Your task to perform on an android device: turn vacation reply on in the gmail app Image 0: 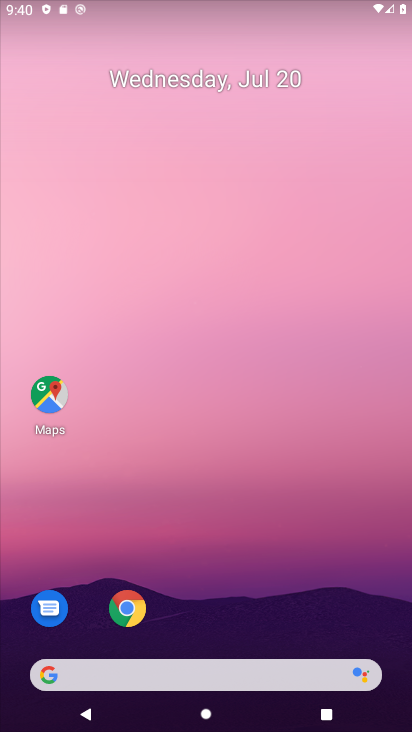
Step 0: click (174, 103)
Your task to perform on an android device: turn vacation reply on in the gmail app Image 1: 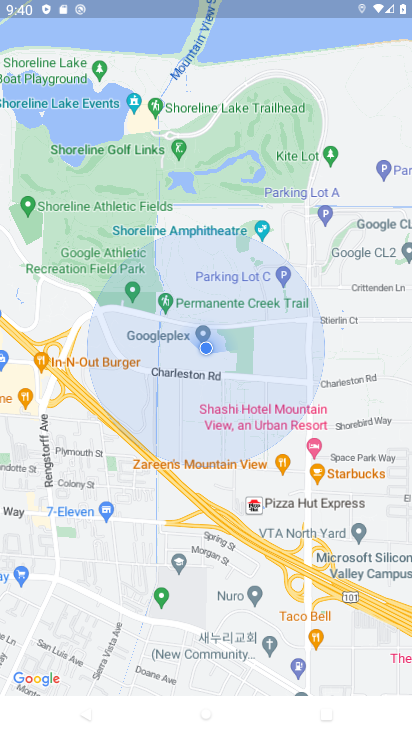
Step 1: press back button
Your task to perform on an android device: turn vacation reply on in the gmail app Image 2: 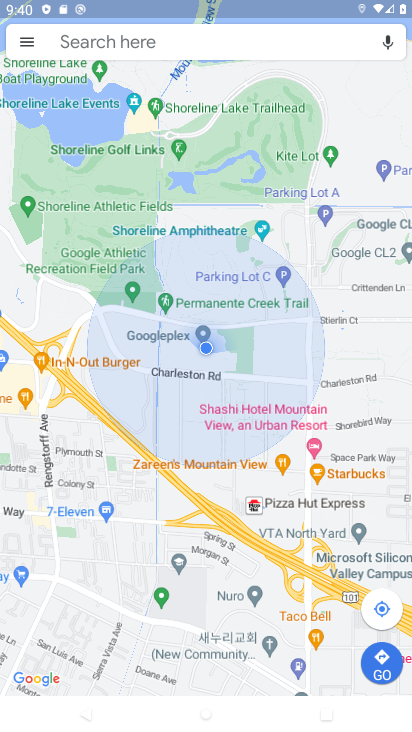
Step 2: press home button
Your task to perform on an android device: turn vacation reply on in the gmail app Image 3: 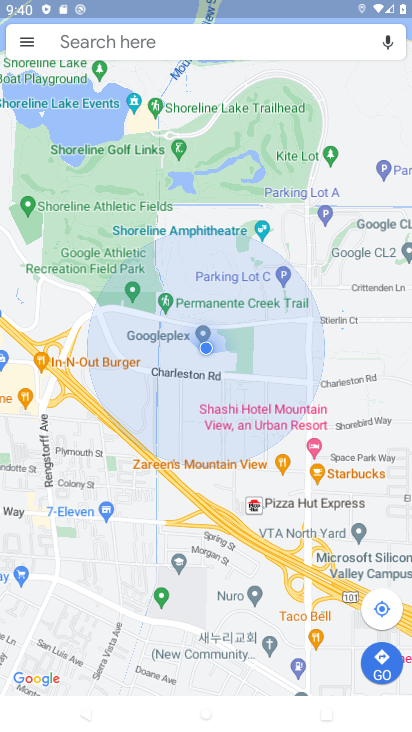
Step 3: press home button
Your task to perform on an android device: turn vacation reply on in the gmail app Image 4: 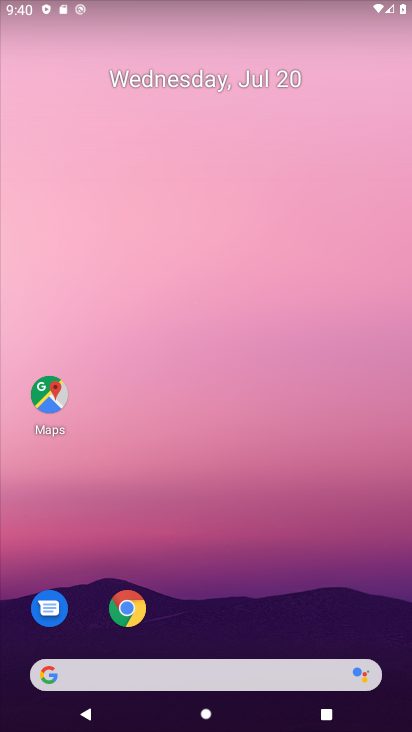
Step 4: drag from (227, 525) to (239, 214)
Your task to perform on an android device: turn vacation reply on in the gmail app Image 5: 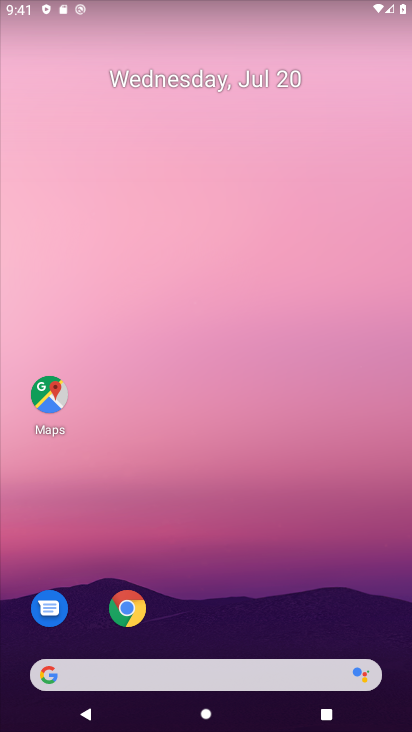
Step 5: drag from (250, 549) to (214, 59)
Your task to perform on an android device: turn vacation reply on in the gmail app Image 6: 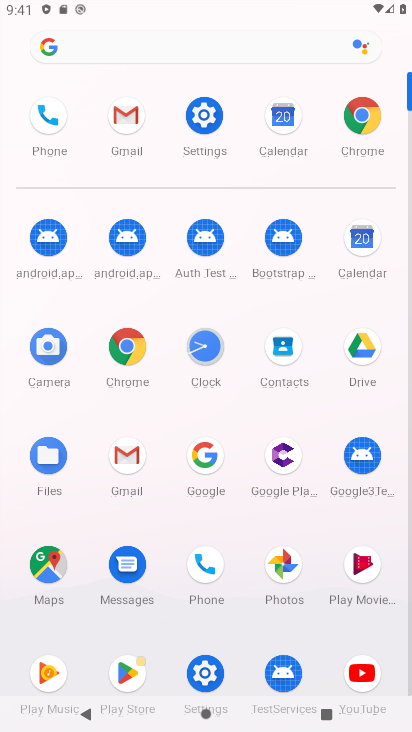
Step 6: click (127, 449)
Your task to perform on an android device: turn vacation reply on in the gmail app Image 7: 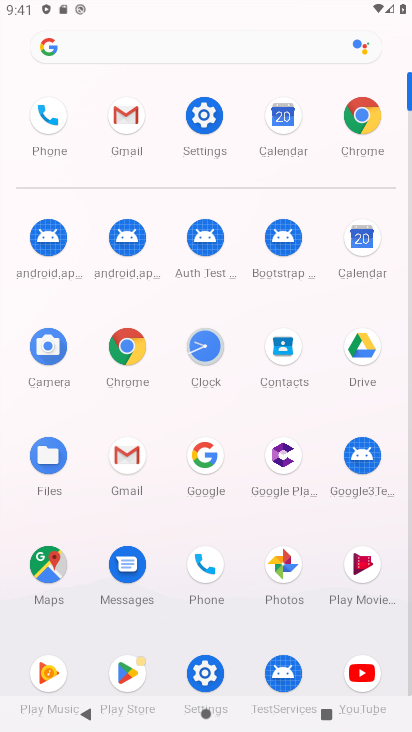
Step 7: click (129, 447)
Your task to perform on an android device: turn vacation reply on in the gmail app Image 8: 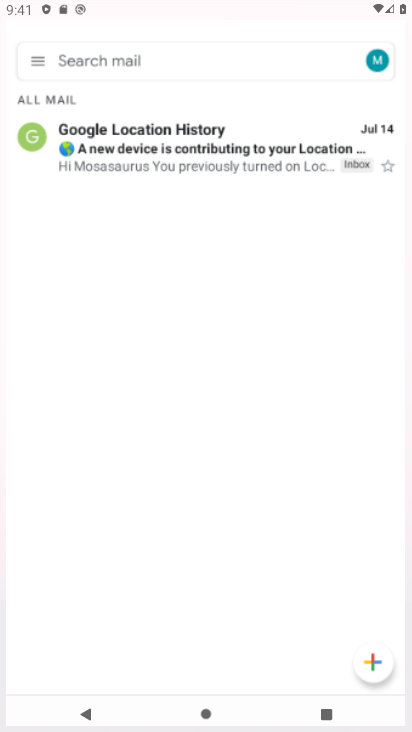
Step 8: click (134, 448)
Your task to perform on an android device: turn vacation reply on in the gmail app Image 9: 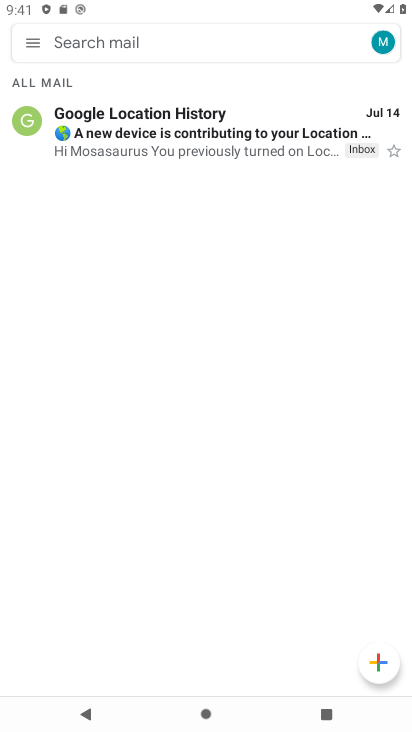
Step 9: click (40, 41)
Your task to perform on an android device: turn vacation reply on in the gmail app Image 10: 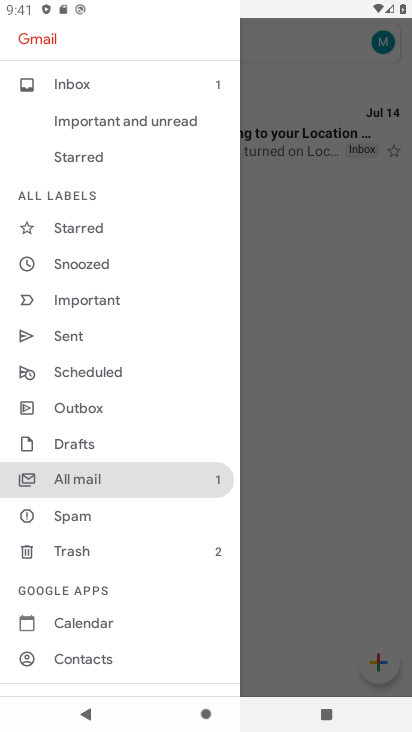
Step 10: drag from (102, 621) to (75, 266)
Your task to perform on an android device: turn vacation reply on in the gmail app Image 11: 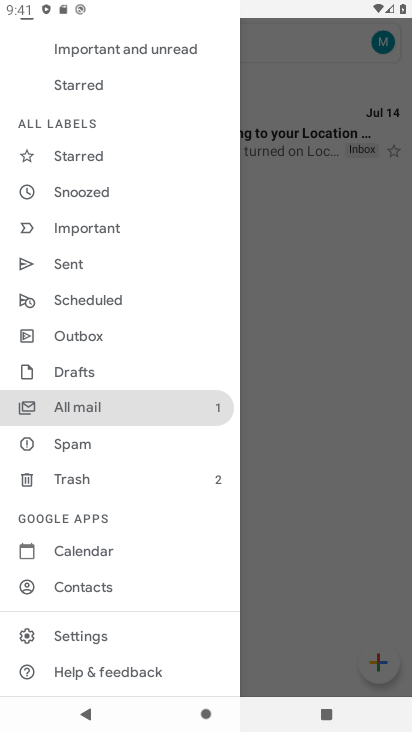
Step 11: click (74, 633)
Your task to perform on an android device: turn vacation reply on in the gmail app Image 12: 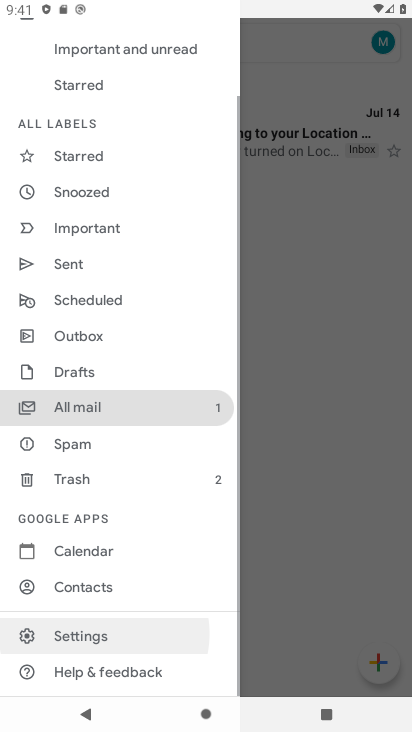
Step 12: click (80, 634)
Your task to perform on an android device: turn vacation reply on in the gmail app Image 13: 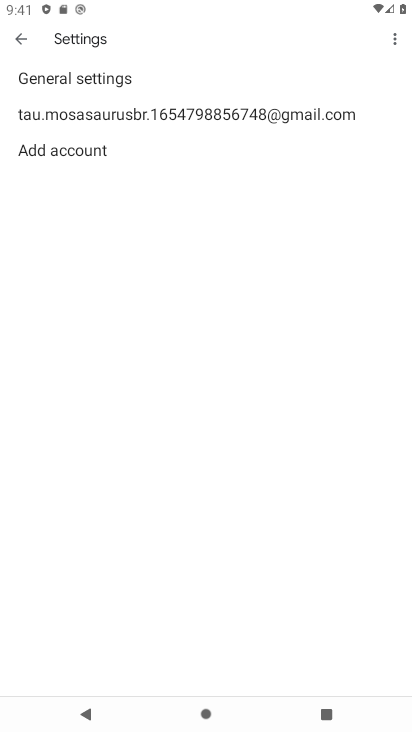
Step 13: click (115, 109)
Your task to perform on an android device: turn vacation reply on in the gmail app Image 14: 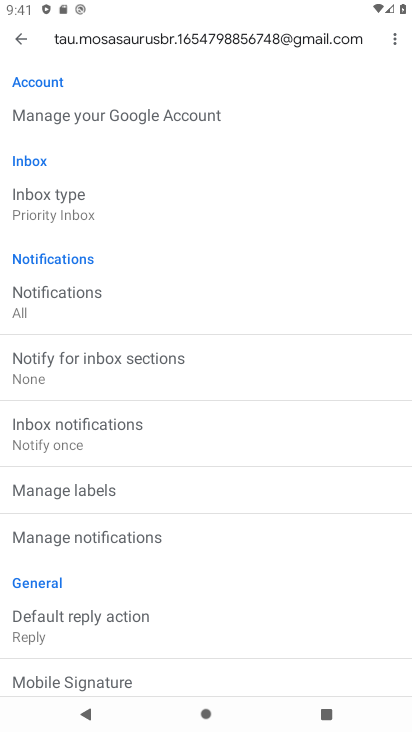
Step 14: drag from (123, 516) to (106, 259)
Your task to perform on an android device: turn vacation reply on in the gmail app Image 15: 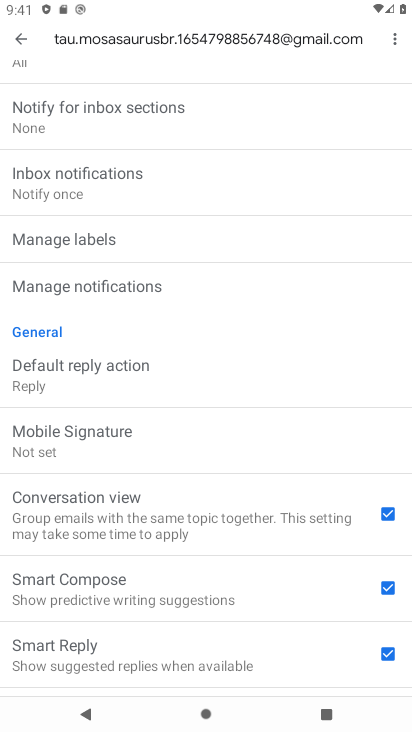
Step 15: drag from (157, 528) to (177, 161)
Your task to perform on an android device: turn vacation reply on in the gmail app Image 16: 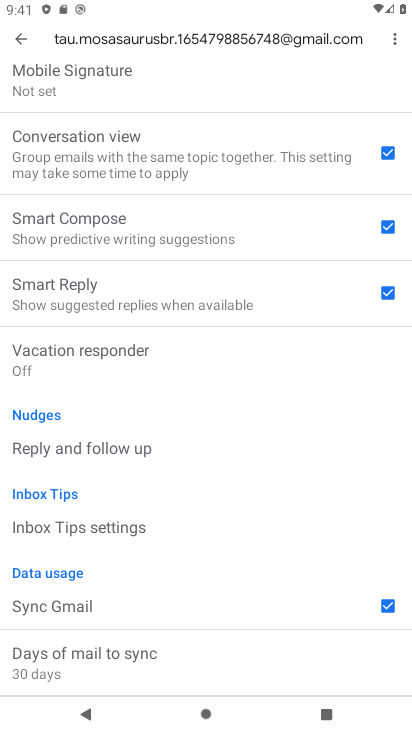
Step 16: click (95, 350)
Your task to perform on an android device: turn vacation reply on in the gmail app Image 17: 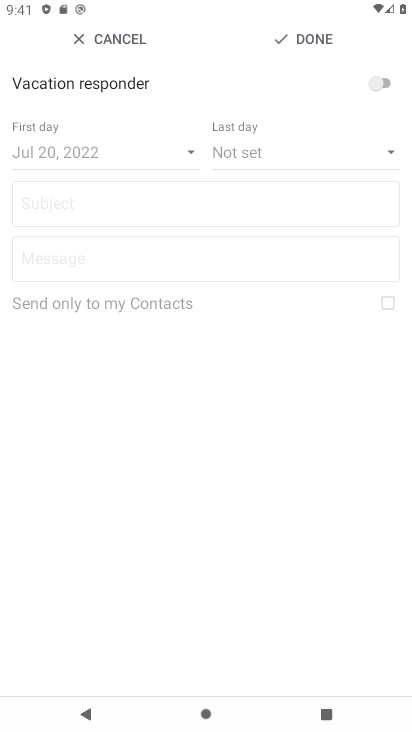
Step 17: click (379, 92)
Your task to perform on an android device: turn vacation reply on in the gmail app Image 18: 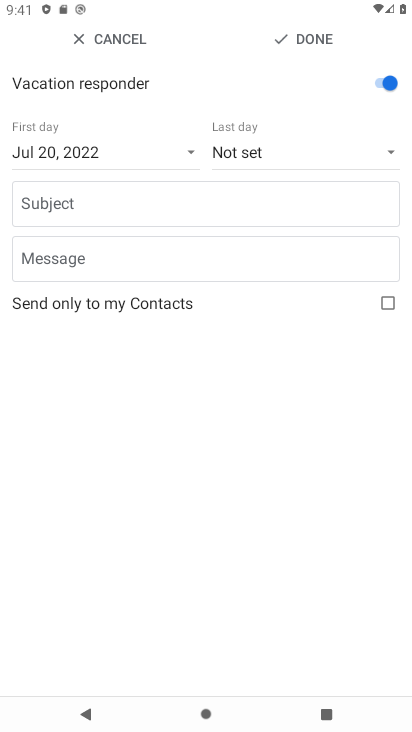
Step 18: task complete